Your task to perform on an android device: toggle wifi Image 0: 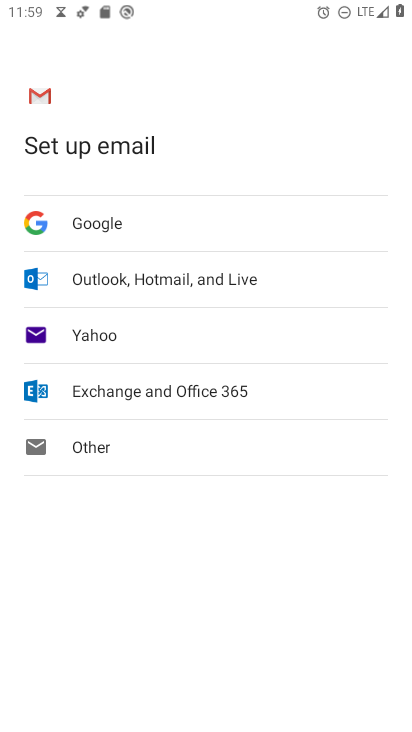
Step 0: press home button
Your task to perform on an android device: toggle wifi Image 1: 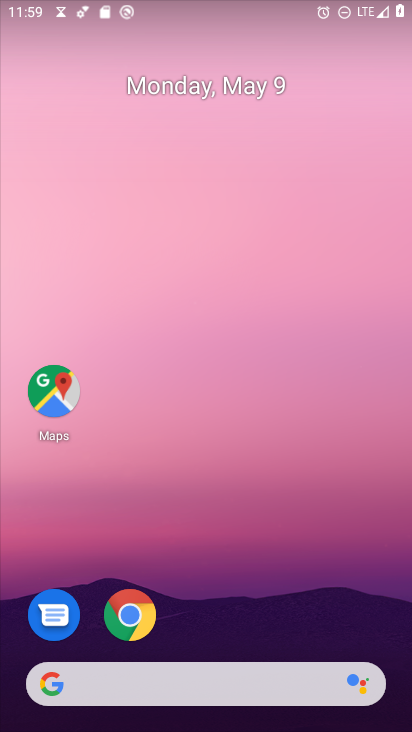
Step 1: drag from (210, 727) to (178, 158)
Your task to perform on an android device: toggle wifi Image 2: 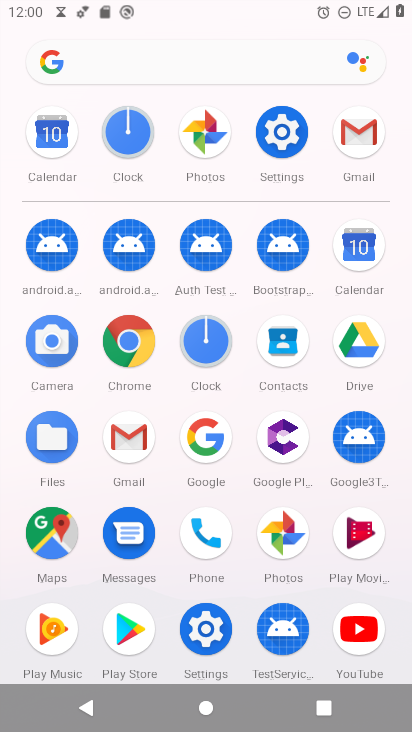
Step 2: click (282, 128)
Your task to perform on an android device: toggle wifi Image 3: 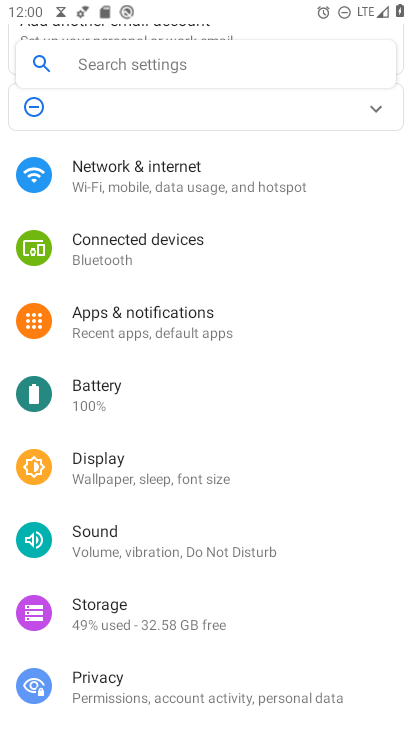
Step 3: click (155, 179)
Your task to perform on an android device: toggle wifi Image 4: 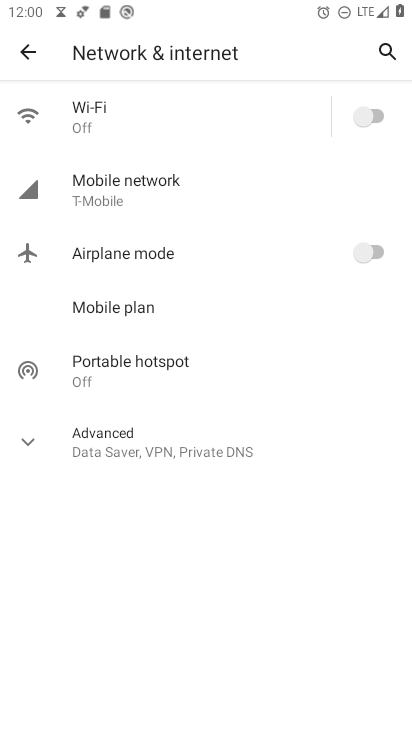
Step 4: click (375, 116)
Your task to perform on an android device: toggle wifi Image 5: 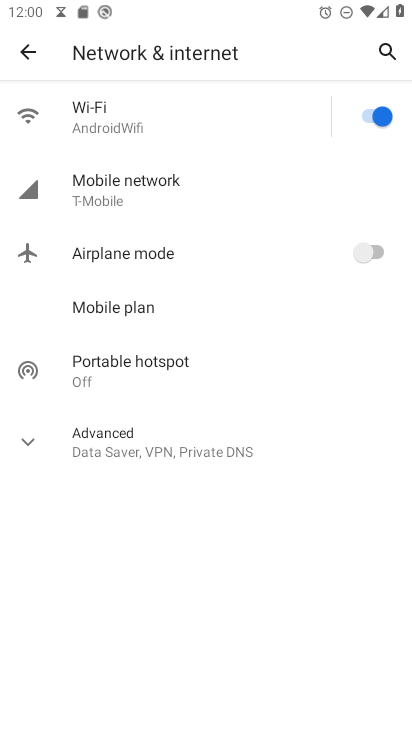
Step 5: task complete